Your task to perform on an android device: change the clock display to show seconds Image 0: 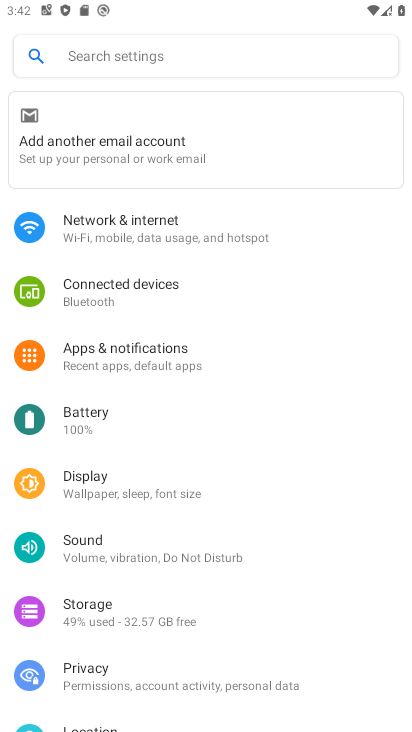
Step 0: press home button
Your task to perform on an android device: change the clock display to show seconds Image 1: 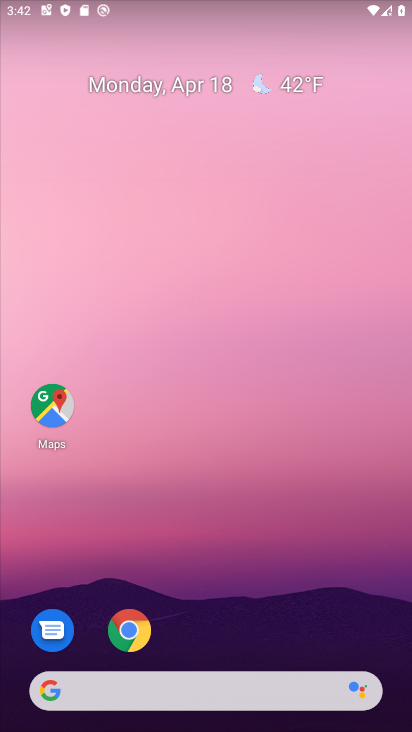
Step 1: drag from (233, 569) to (286, 144)
Your task to perform on an android device: change the clock display to show seconds Image 2: 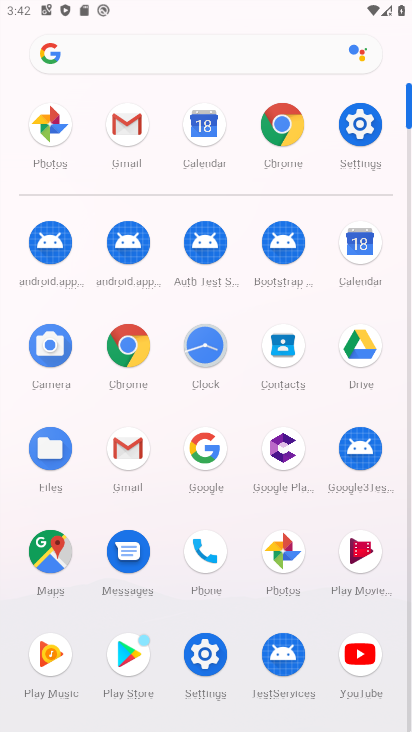
Step 2: click (205, 338)
Your task to perform on an android device: change the clock display to show seconds Image 3: 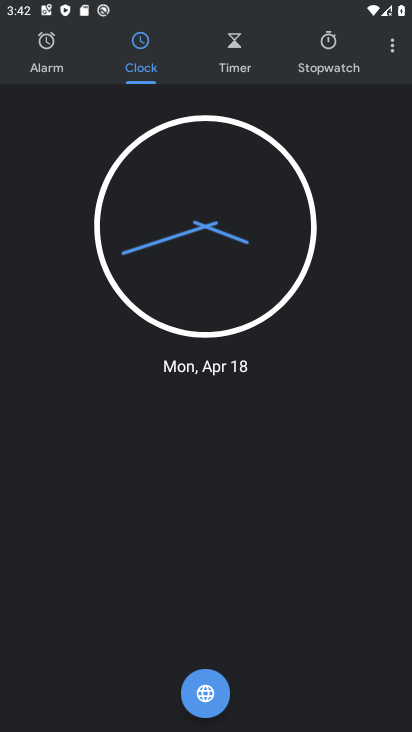
Step 3: click (381, 51)
Your task to perform on an android device: change the clock display to show seconds Image 4: 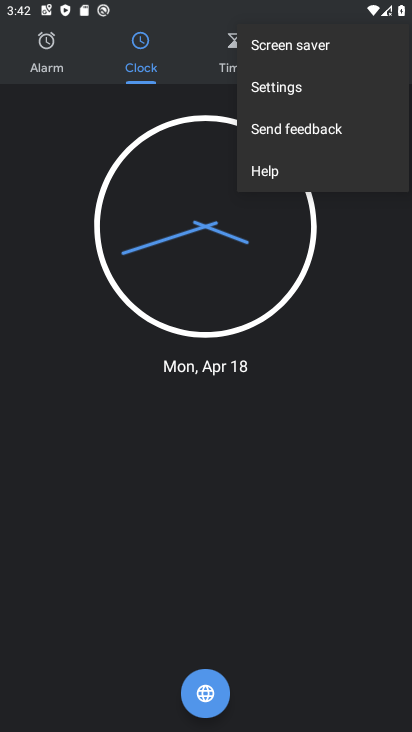
Step 4: click (309, 76)
Your task to perform on an android device: change the clock display to show seconds Image 5: 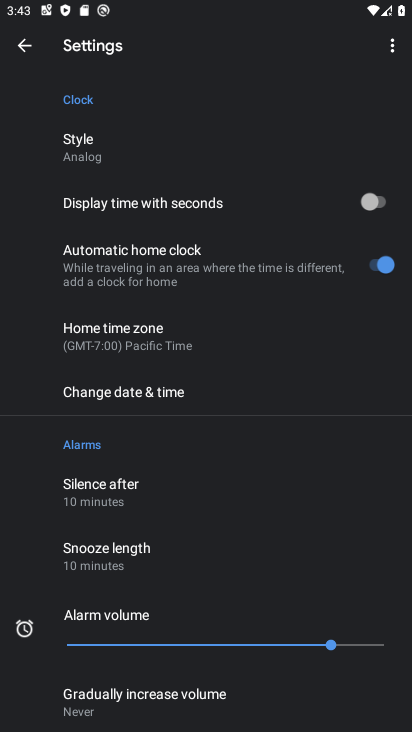
Step 5: click (379, 191)
Your task to perform on an android device: change the clock display to show seconds Image 6: 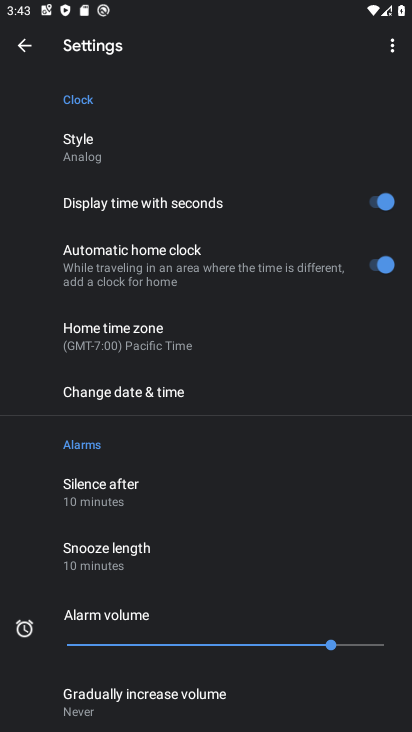
Step 6: task complete